Your task to perform on an android device: change text size in settings app Image 0: 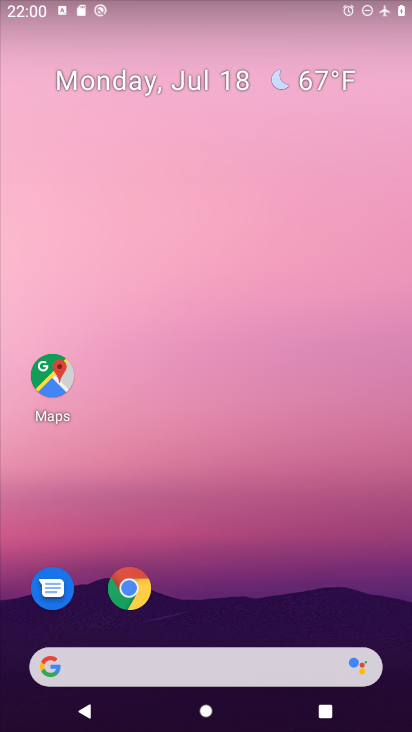
Step 0: drag from (388, 626) to (358, 220)
Your task to perform on an android device: change text size in settings app Image 1: 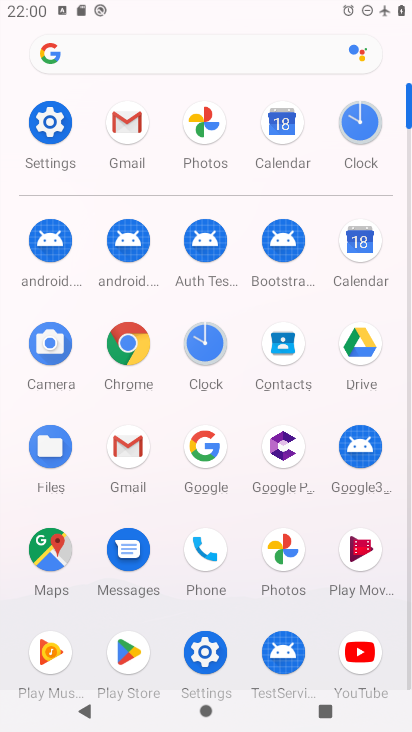
Step 1: click (205, 647)
Your task to perform on an android device: change text size in settings app Image 2: 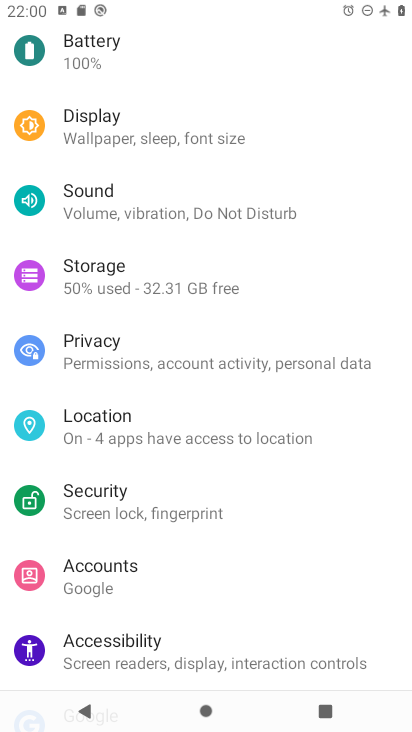
Step 2: click (110, 135)
Your task to perform on an android device: change text size in settings app Image 3: 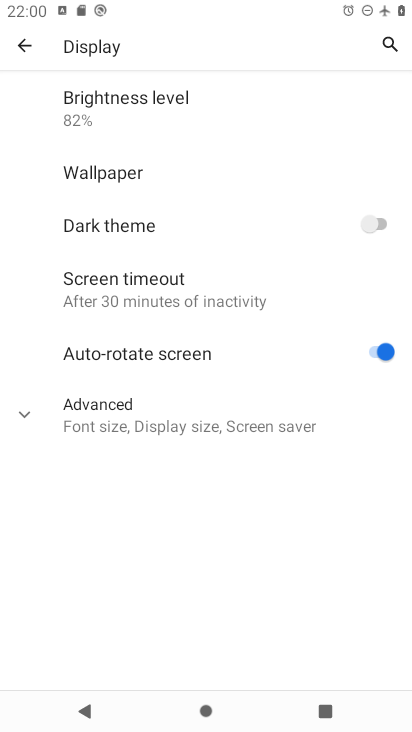
Step 3: click (25, 415)
Your task to perform on an android device: change text size in settings app Image 4: 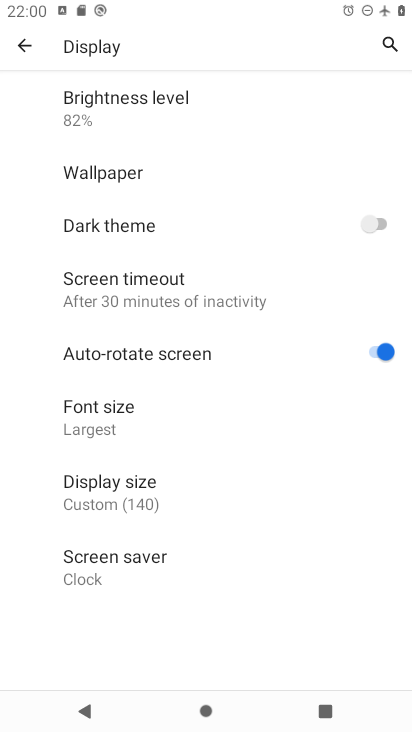
Step 4: click (123, 413)
Your task to perform on an android device: change text size in settings app Image 5: 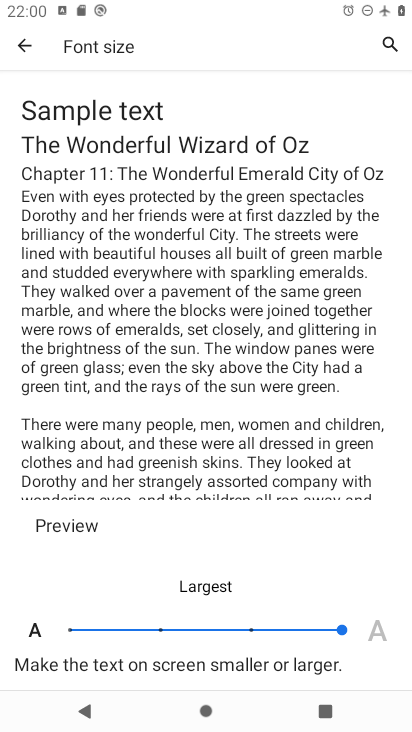
Step 5: click (251, 631)
Your task to perform on an android device: change text size in settings app Image 6: 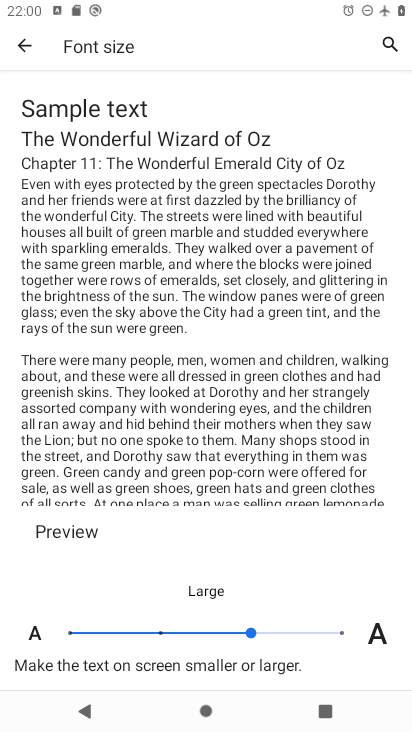
Step 6: task complete